Your task to perform on an android device: delete location history Image 0: 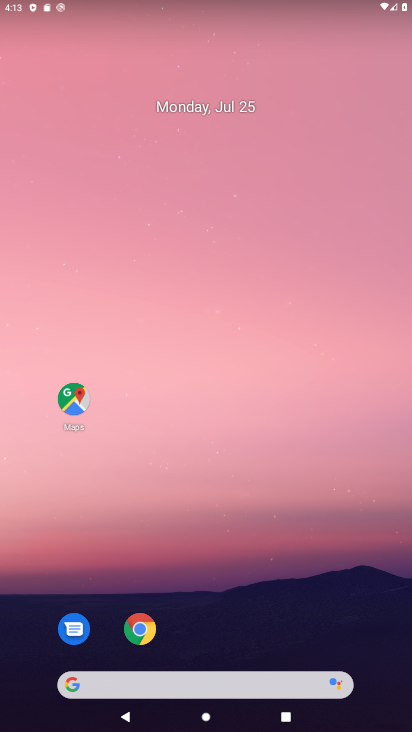
Step 0: drag from (247, 687) to (304, 55)
Your task to perform on an android device: delete location history Image 1: 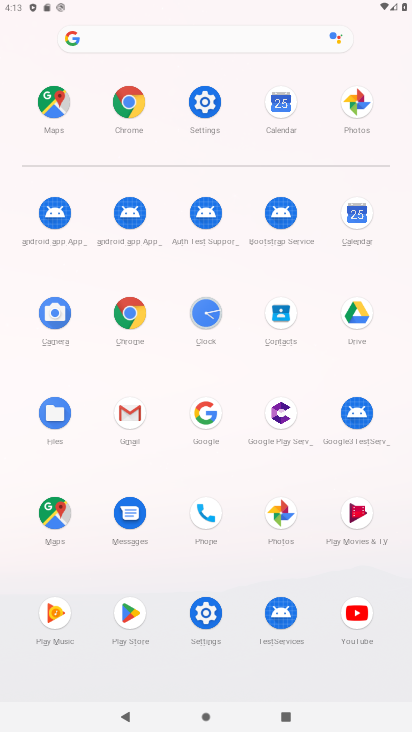
Step 1: click (210, 93)
Your task to perform on an android device: delete location history Image 2: 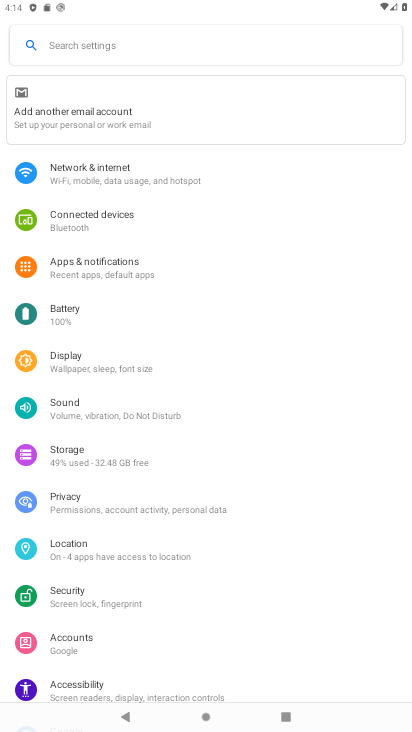
Step 2: click (72, 553)
Your task to perform on an android device: delete location history Image 3: 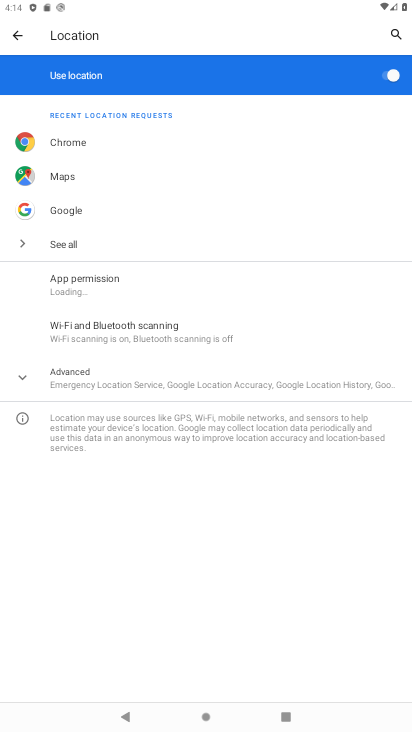
Step 3: press home button
Your task to perform on an android device: delete location history Image 4: 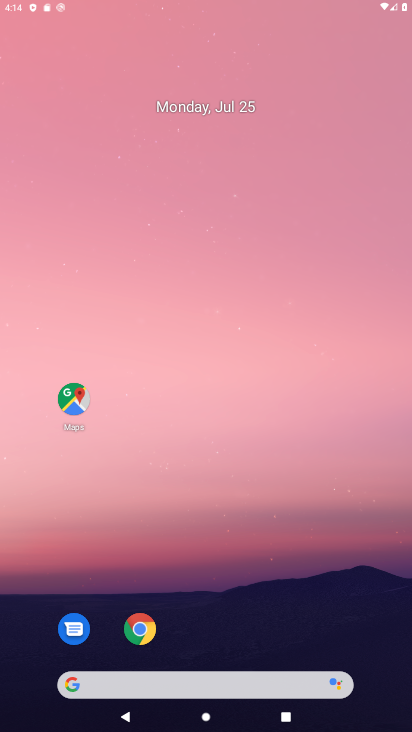
Step 4: drag from (278, 700) to (360, 552)
Your task to perform on an android device: delete location history Image 5: 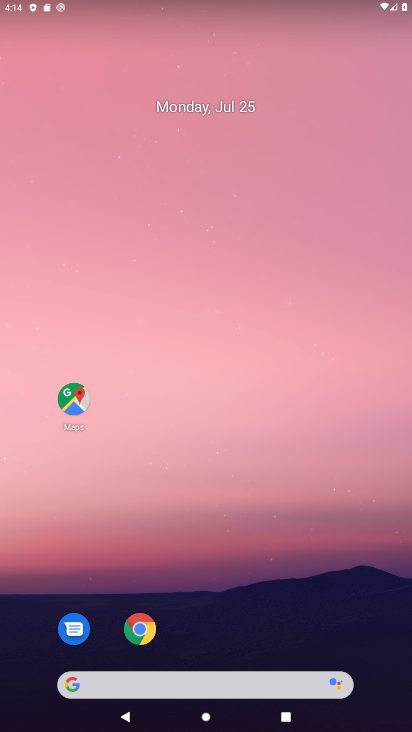
Step 5: click (43, 516)
Your task to perform on an android device: delete location history Image 6: 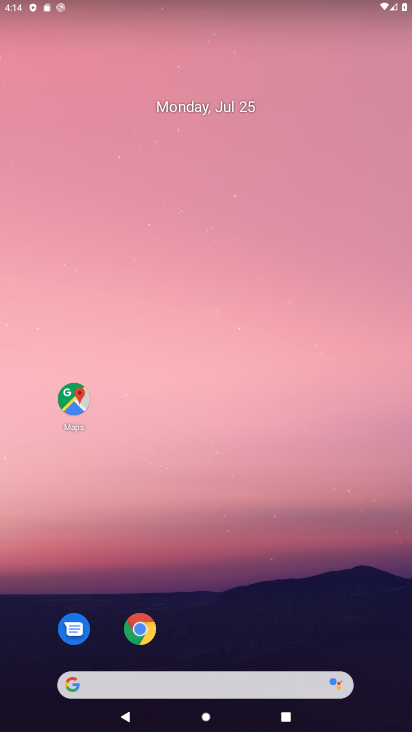
Step 6: drag from (247, 694) to (311, 2)
Your task to perform on an android device: delete location history Image 7: 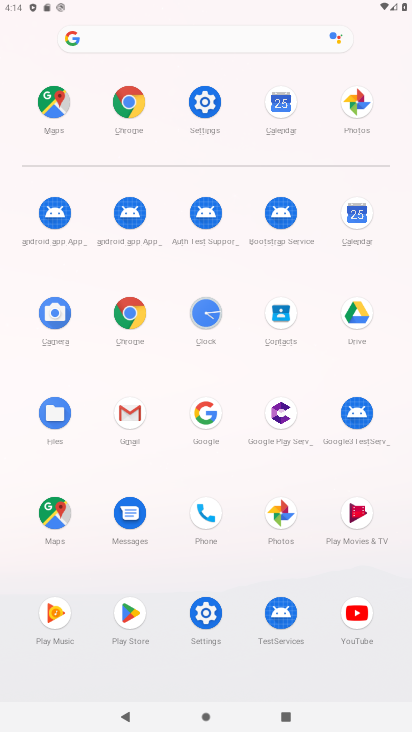
Step 7: click (46, 507)
Your task to perform on an android device: delete location history Image 8: 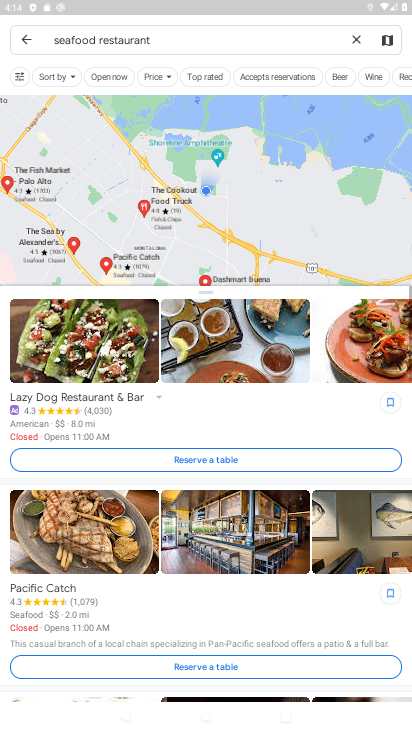
Step 8: press back button
Your task to perform on an android device: delete location history Image 9: 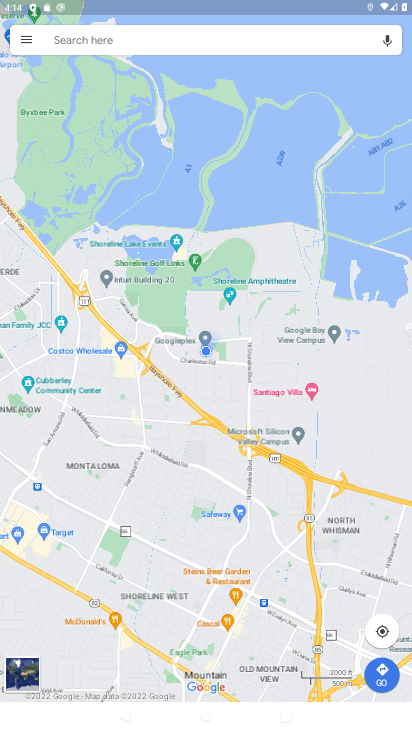
Step 9: click (24, 37)
Your task to perform on an android device: delete location history Image 10: 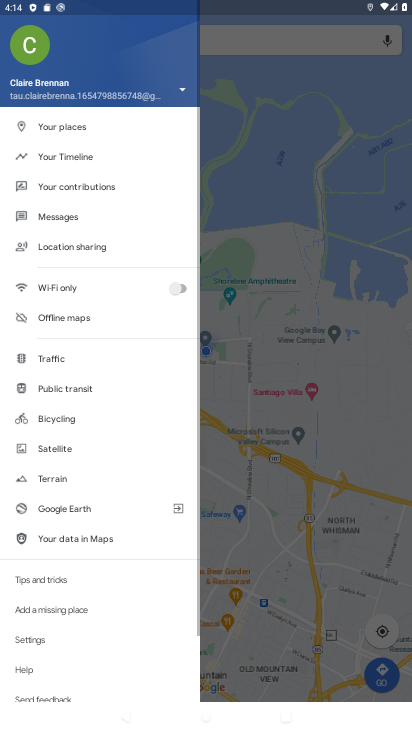
Step 10: click (26, 148)
Your task to perform on an android device: delete location history Image 11: 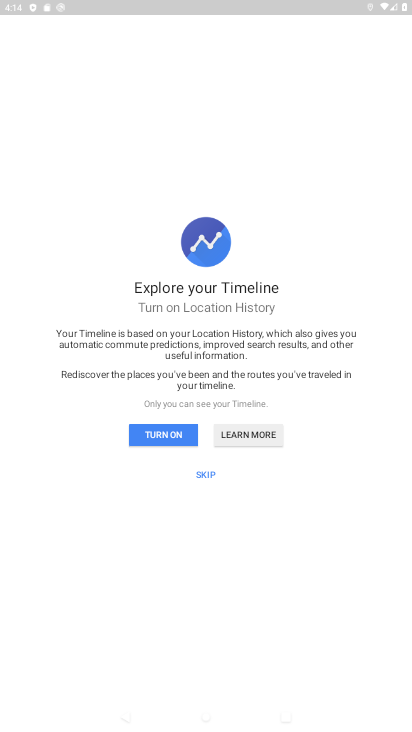
Step 11: click (209, 466)
Your task to perform on an android device: delete location history Image 12: 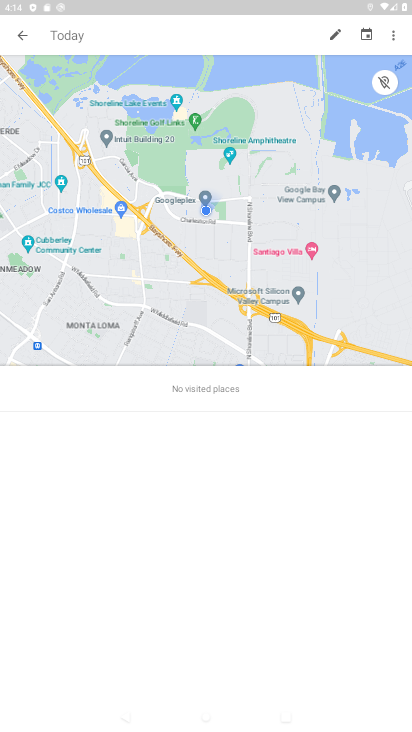
Step 12: click (388, 36)
Your task to perform on an android device: delete location history Image 13: 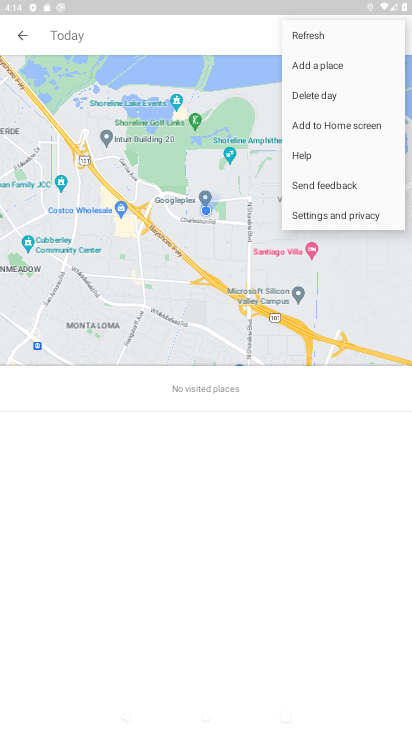
Step 13: click (314, 212)
Your task to perform on an android device: delete location history Image 14: 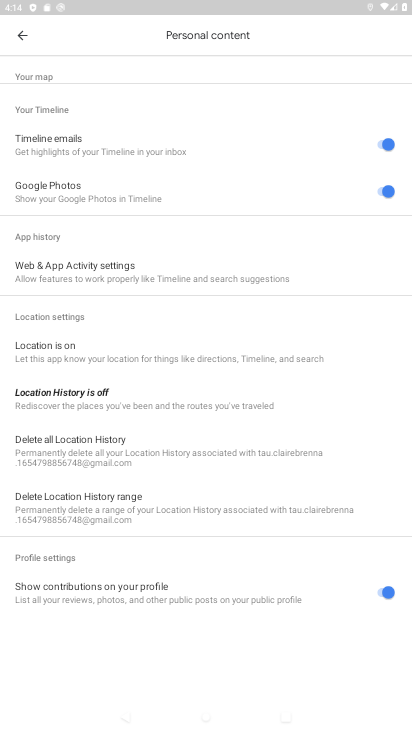
Step 14: click (223, 455)
Your task to perform on an android device: delete location history Image 15: 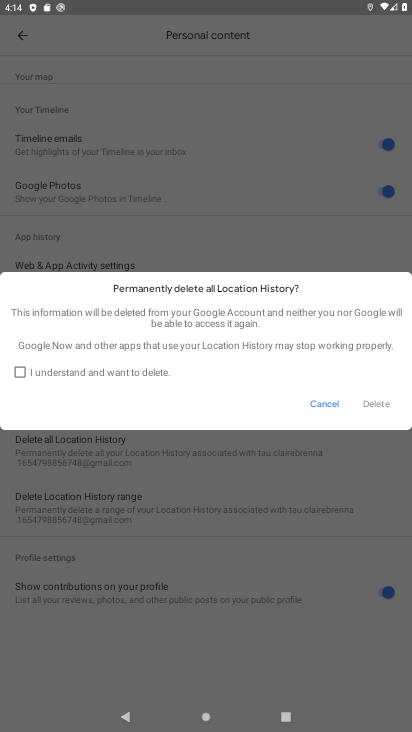
Step 15: click (20, 368)
Your task to perform on an android device: delete location history Image 16: 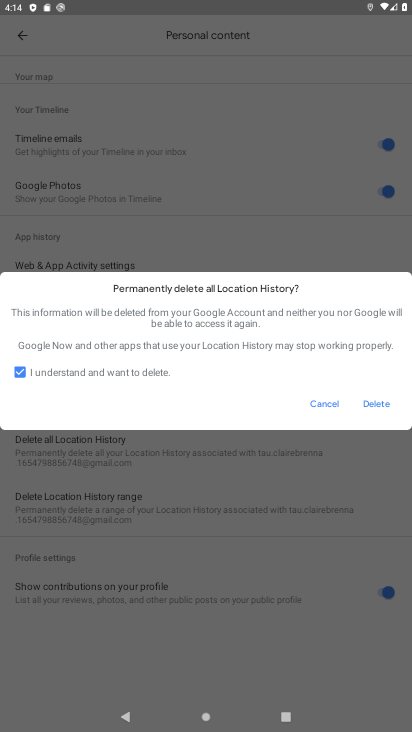
Step 16: click (373, 402)
Your task to perform on an android device: delete location history Image 17: 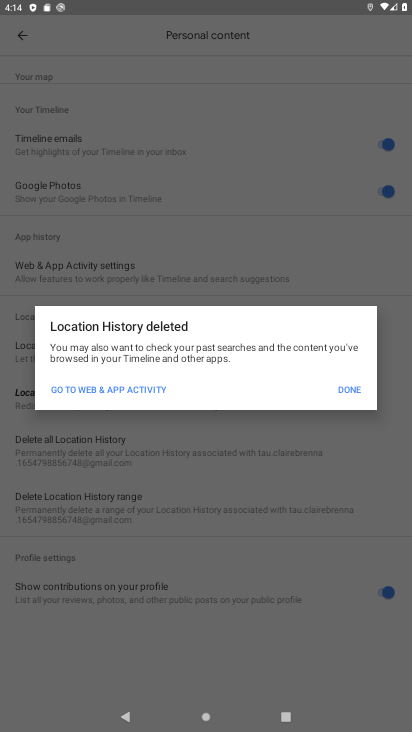
Step 17: task complete